Your task to perform on an android device: Show me popular games on the Play Store Image 0: 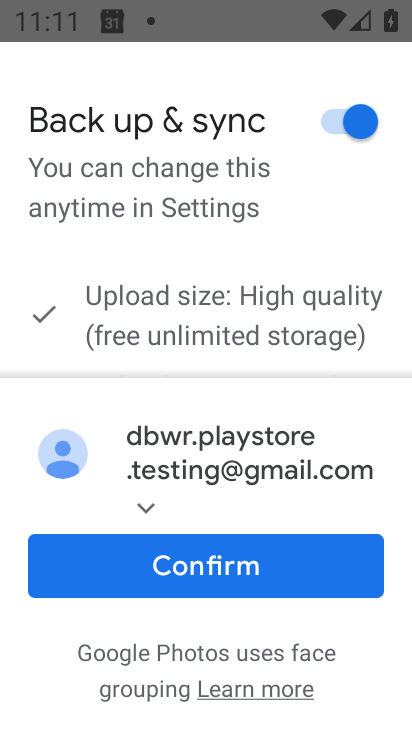
Step 0: press home button
Your task to perform on an android device: Show me popular games on the Play Store Image 1: 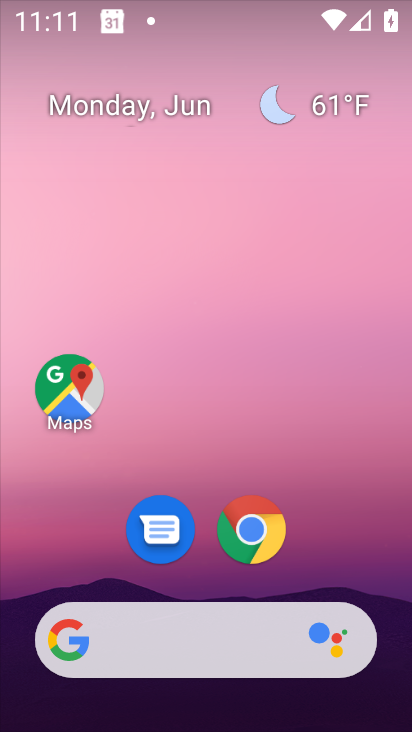
Step 1: drag from (71, 597) to (174, 159)
Your task to perform on an android device: Show me popular games on the Play Store Image 2: 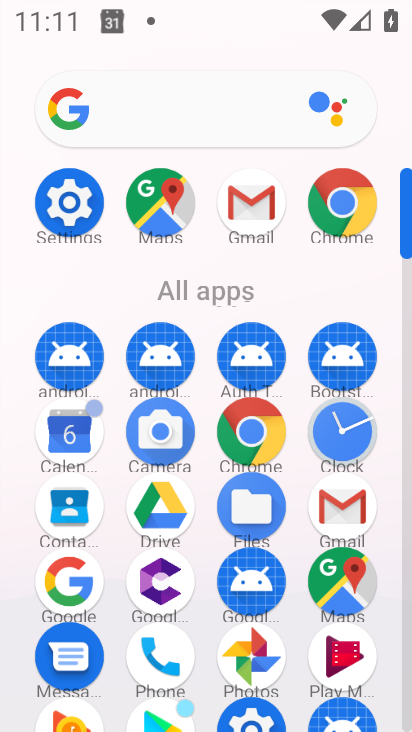
Step 2: drag from (150, 630) to (246, 385)
Your task to perform on an android device: Show me popular games on the Play Store Image 3: 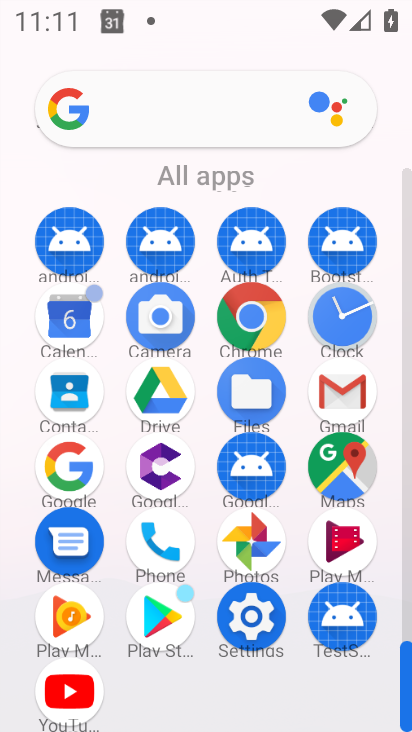
Step 3: click (155, 613)
Your task to perform on an android device: Show me popular games on the Play Store Image 4: 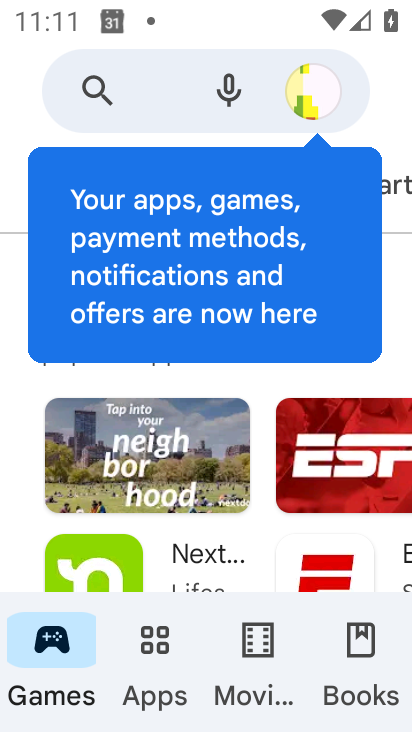
Step 4: drag from (216, 564) to (408, 176)
Your task to perform on an android device: Show me popular games on the Play Store Image 5: 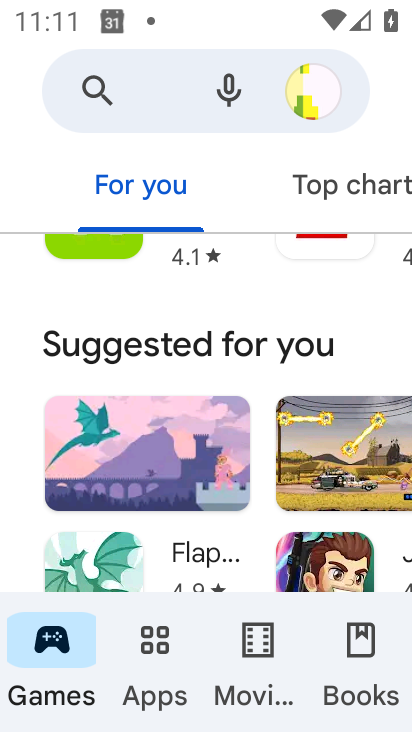
Step 5: drag from (190, 523) to (360, 0)
Your task to perform on an android device: Show me popular games on the Play Store Image 6: 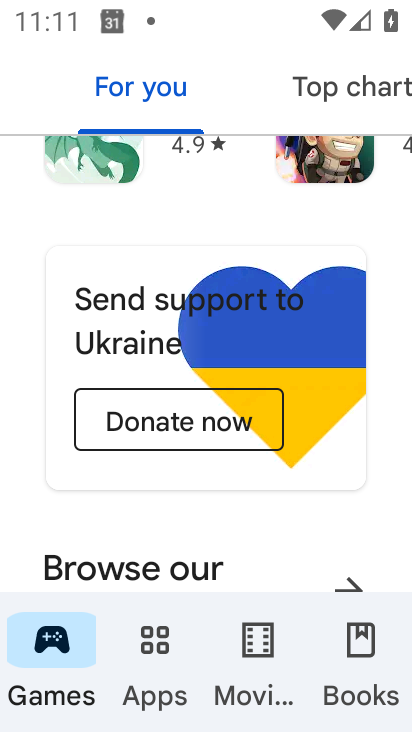
Step 6: drag from (205, 531) to (331, 66)
Your task to perform on an android device: Show me popular games on the Play Store Image 7: 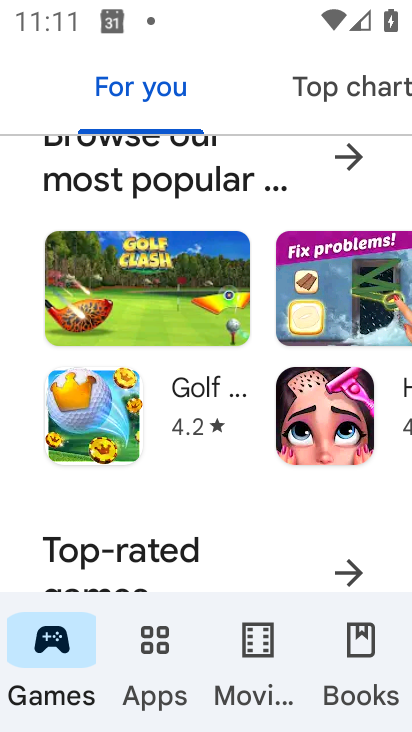
Step 7: click (349, 173)
Your task to perform on an android device: Show me popular games on the Play Store Image 8: 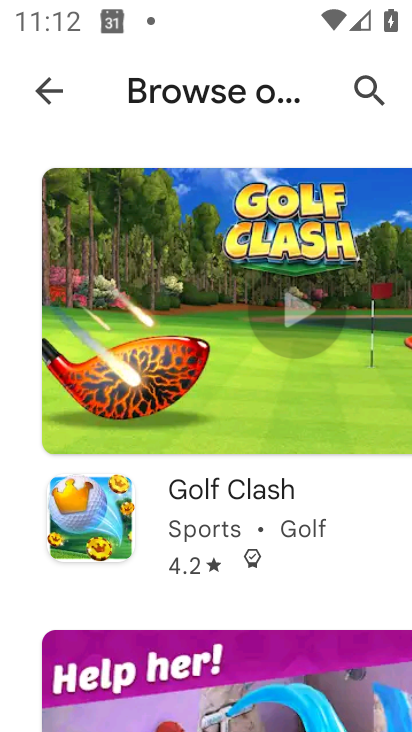
Step 8: task complete